Your task to perform on an android device: Go to Android settings Image 0: 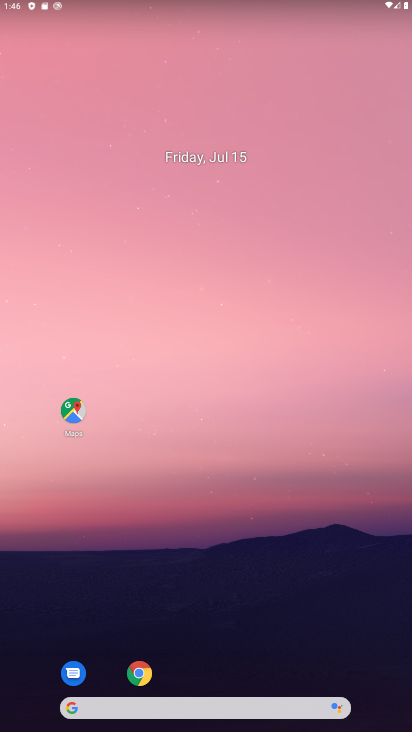
Step 0: drag from (286, 444) to (51, 539)
Your task to perform on an android device: Go to Android settings Image 1: 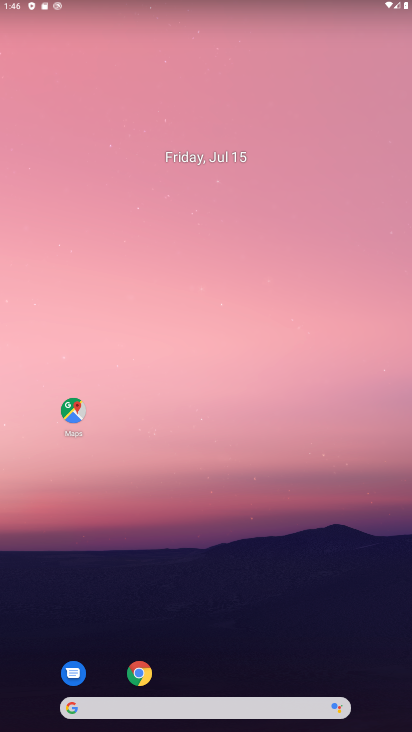
Step 1: drag from (232, 650) to (112, 2)
Your task to perform on an android device: Go to Android settings Image 2: 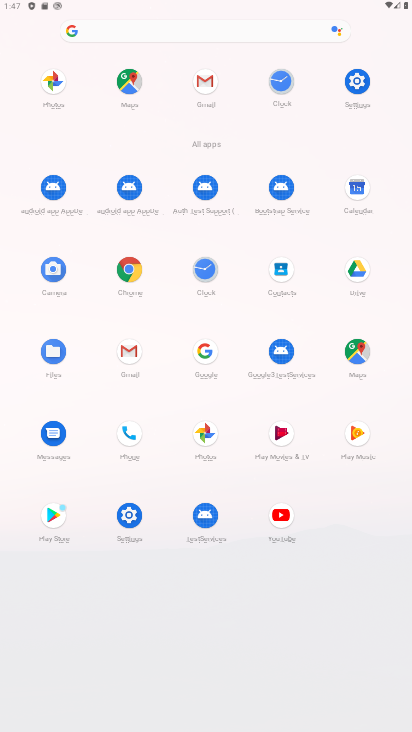
Step 2: click (120, 515)
Your task to perform on an android device: Go to Android settings Image 3: 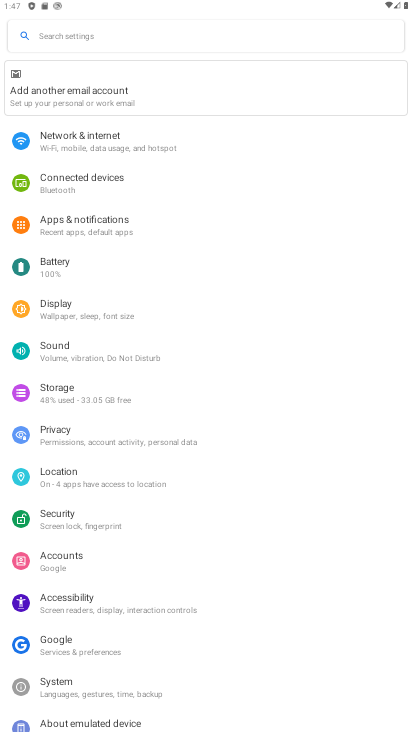
Step 3: task complete